Your task to perform on an android device: What's on my calendar today? Image 0: 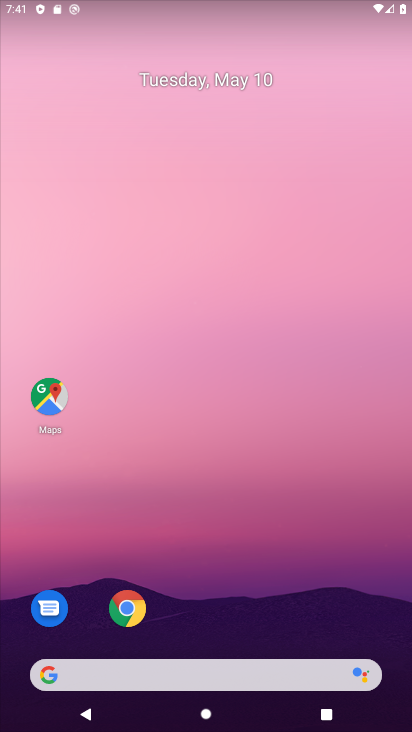
Step 0: drag from (263, 117) to (280, 202)
Your task to perform on an android device: What's on my calendar today? Image 1: 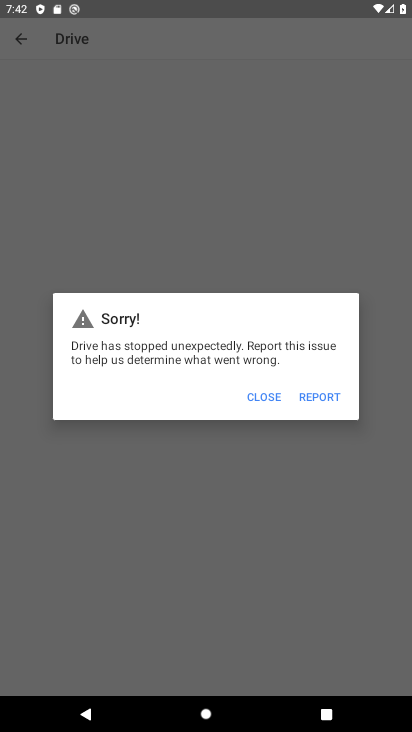
Step 1: drag from (240, 668) to (291, 240)
Your task to perform on an android device: What's on my calendar today? Image 2: 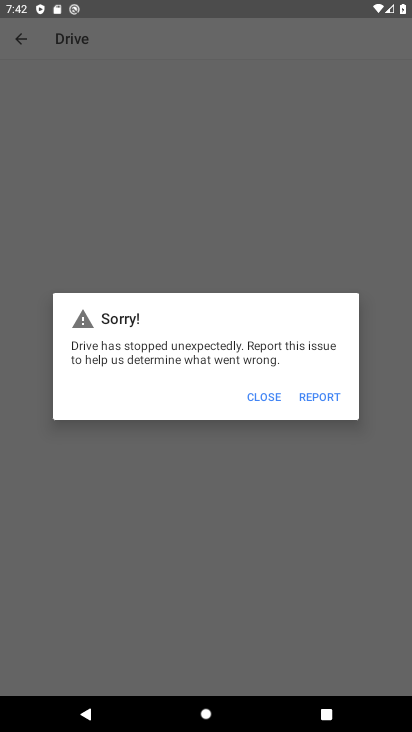
Step 2: press home button
Your task to perform on an android device: What's on my calendar today? Image 3: 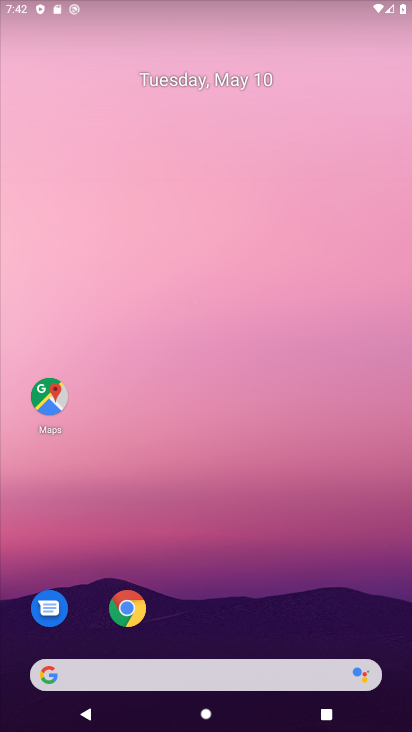
Step 3: drag from (243, 595) to (245, 295)
Your task to perform on an android device: What's on my calendar today? Image 4: 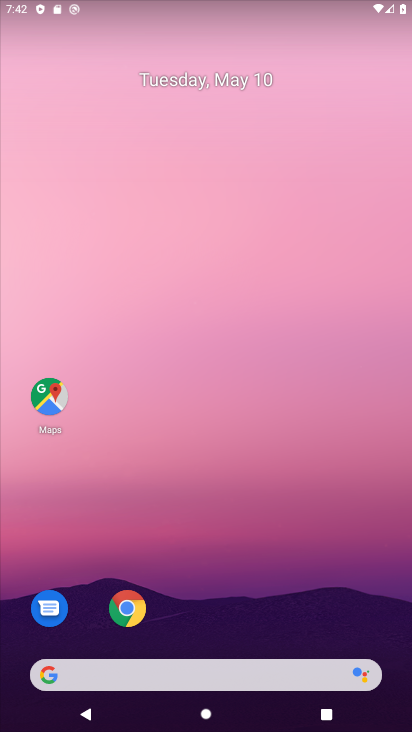
Step 4: drag from (262, 596) to (262, 336)
Your task to perform on an android device: What's on my calendar today? Image 5: 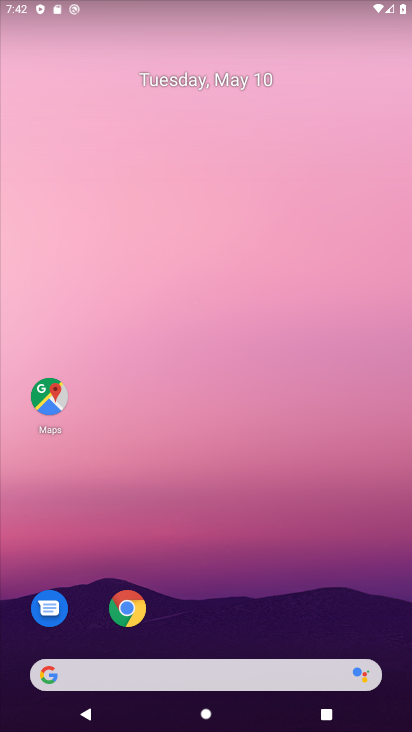
Step 5: drag from (262, 595) to (252, 281)
Your task to perform on an android device: What's on my calendar today? Image 6: 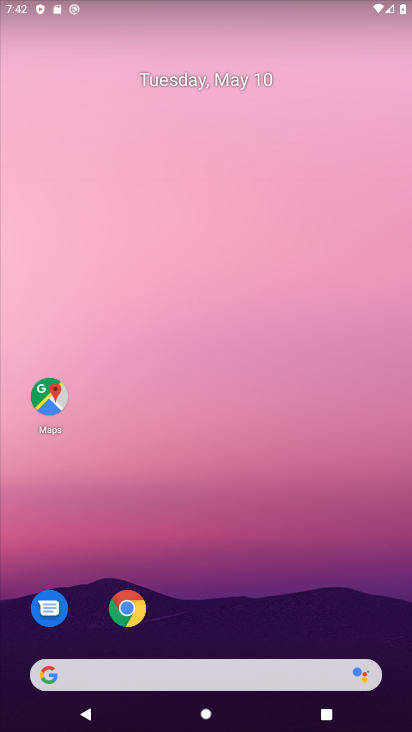
Step 6: drag from (228, 659) to (221, 172)
Your task to perform on an android device: What's on my calendar today? Image 7: 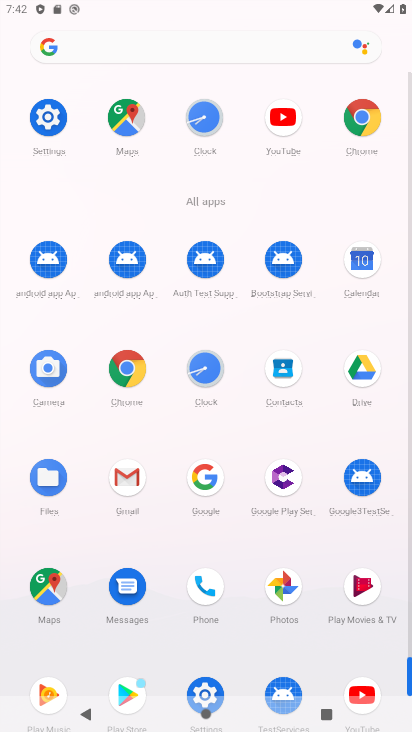
Step 7: click (353, 253)
Your task to perform on an android device: What's on my calendar today? Image 8: 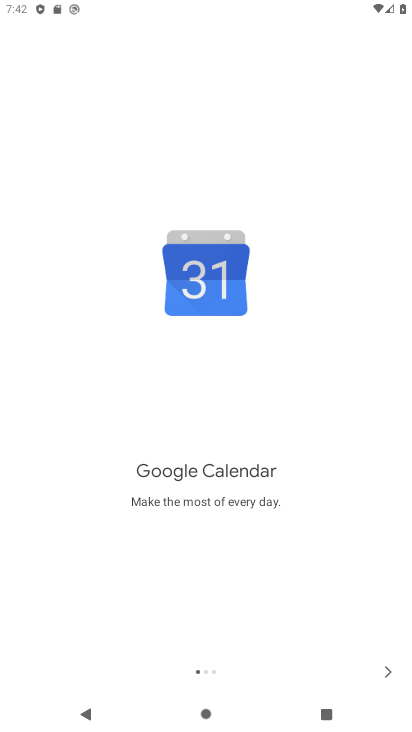
Step 8: click (379, 670)
Your task to perform on an android device: What's on my calendar today? Image 9: 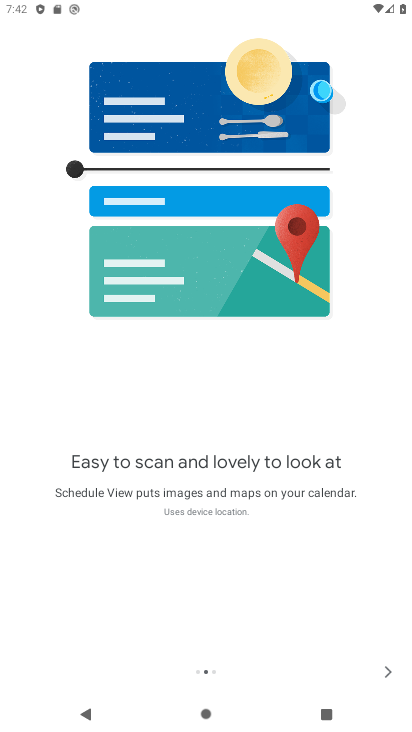
Step 9: click (379, 668)
Your task to perform on an android device: What's on my calendar today? Image 10: 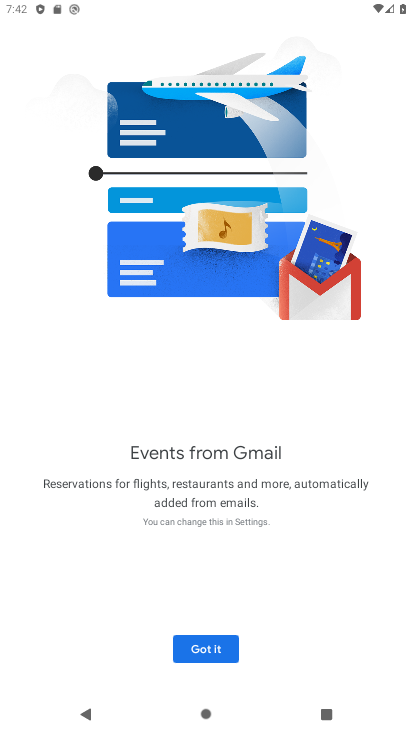
Step 10: click (217, 648)
Your task to perform on an android device: What's on my calendar today? Image 11: 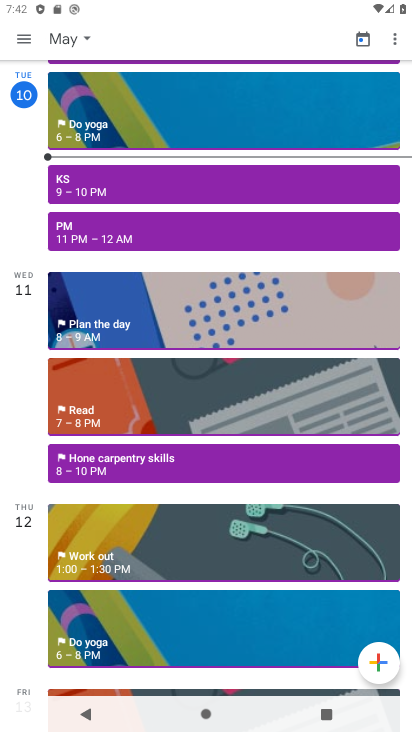
Step 11: click (19, 38)
Your task to perform on an android device: What's on my calendar today? Image 12: 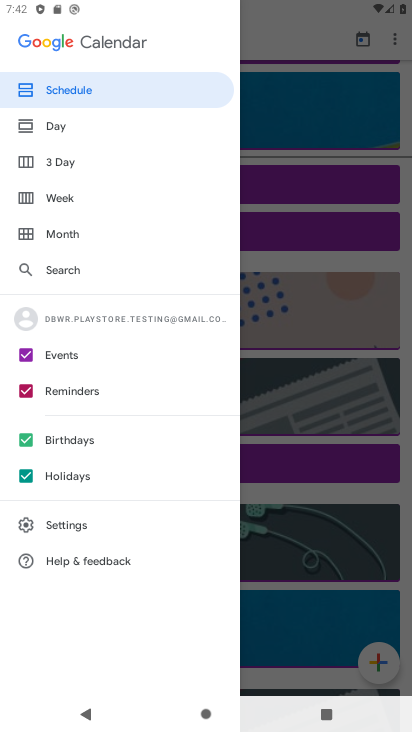
Step 12: click (81, 235)
Your task to perform on an android device: What's on my calendar today? Image 13: 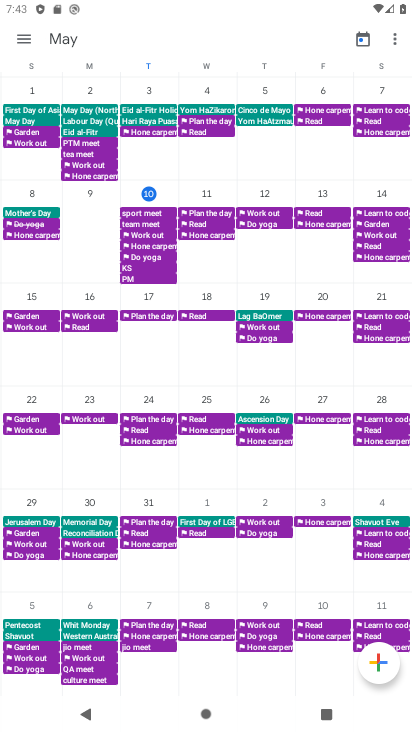
Step 13: click (204, 199)
Your task to perform on an android device: What's on my calendar today? Image 14: 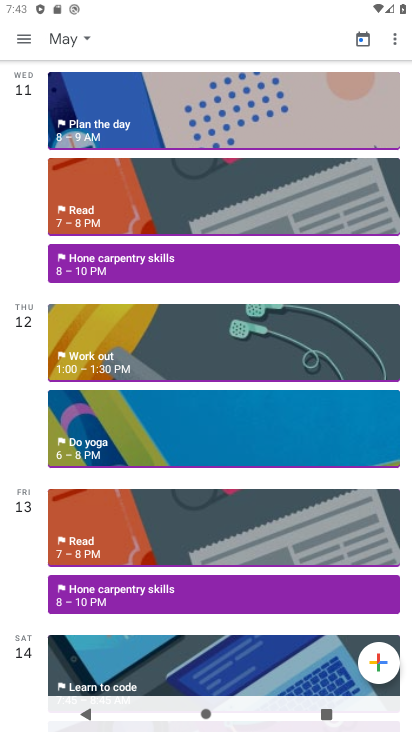
Step 14: task complete